Your task to perform on an android device: install app "YouTube Kids" Image 0: 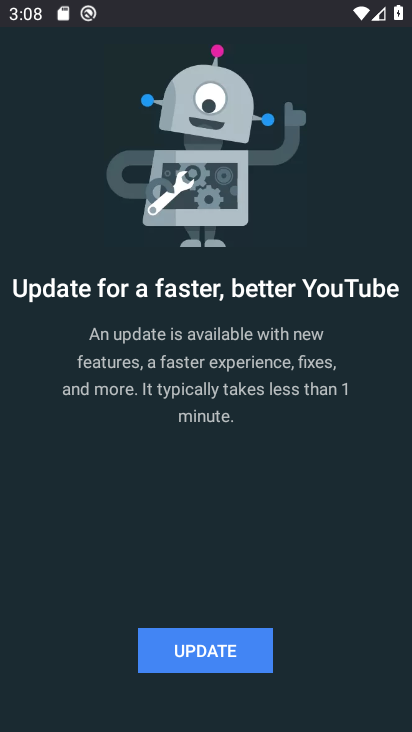
Step 0: press home button
Your task to perform on an android device: install app "YouTube Kids" Image 1: 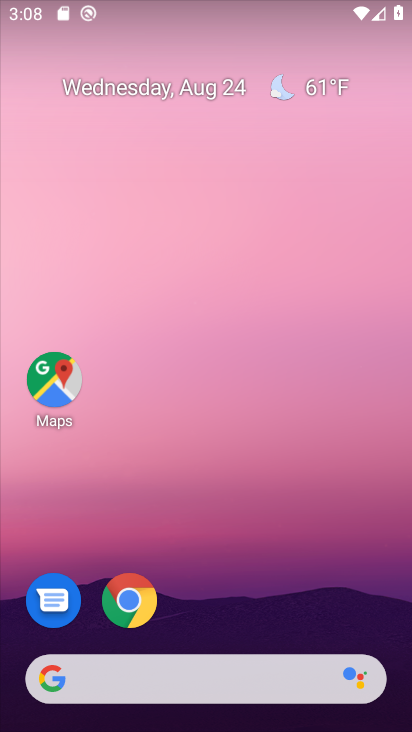
Step 1: drag from (250, 606) to (12, 91)
Your task to perform on an android device: install app "YouTube Kids" Image 2: 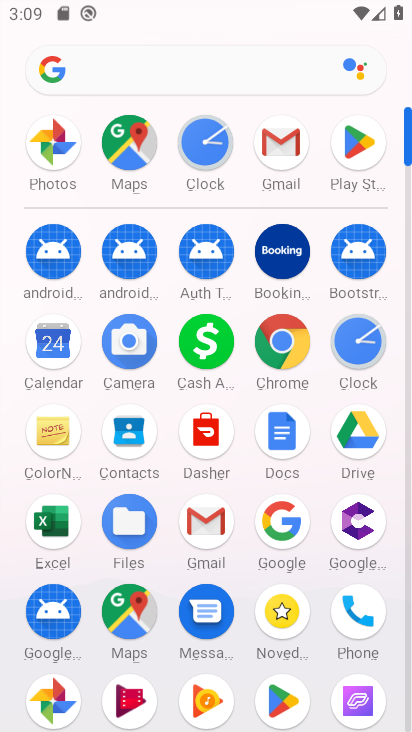
Step 2: drag from (176, 625) to (296, 58)
Your task to perform on an android device: install app "YouTube Kids" Image 3: 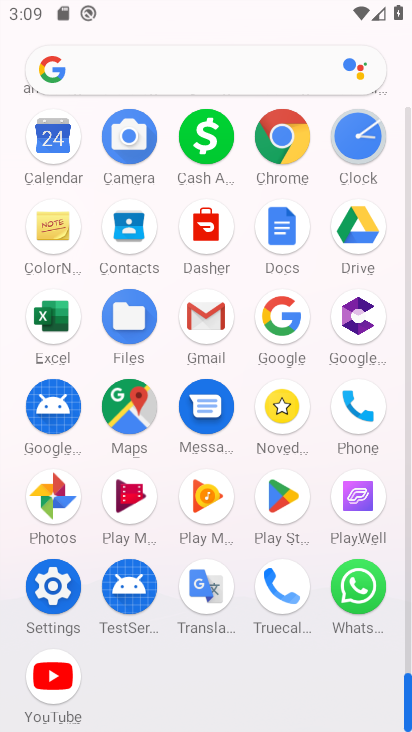
Step 3: click (53, 685)
Your task to perform on an android device: install app "YouTube Kids" Image 4: 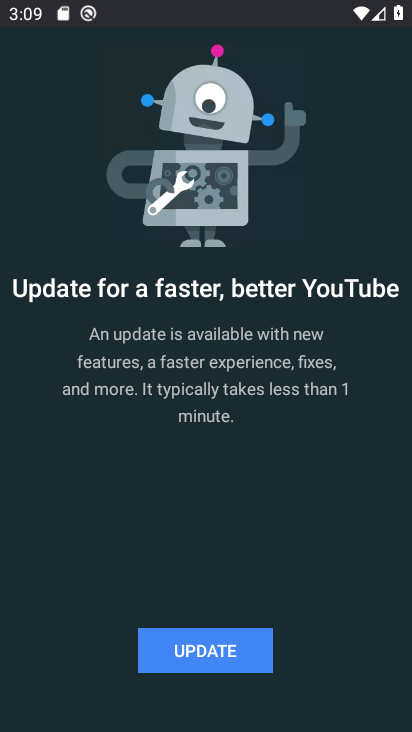
Step 4: press back button
Your task to perform on an android device: install app "YouTube Kids" Image 5: 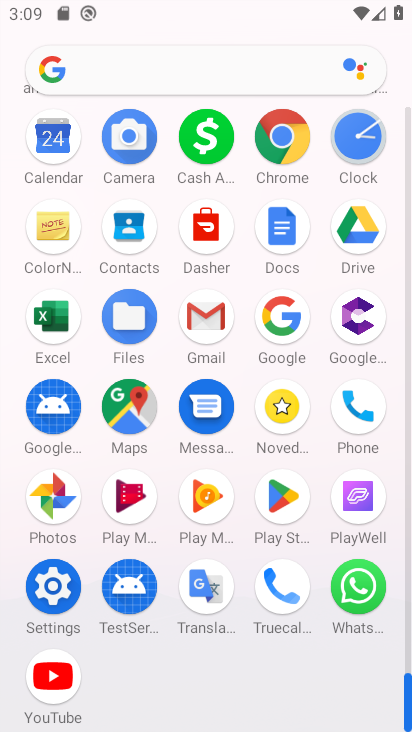
Step 5: click (288, 497)
Your task to perform on an android device: install app "YouTube Kids" Image 6: 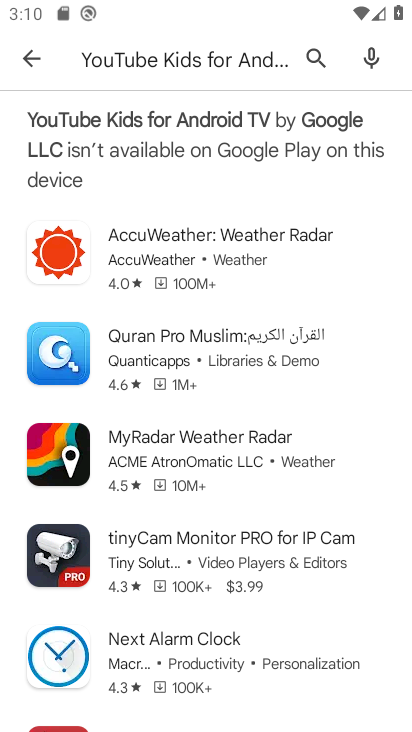
Step 6: task complete